Your task to perform on an android device: Go to Wikipedia Image 0: 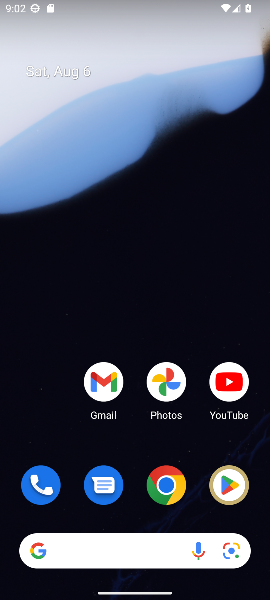
Step 0: drag from (137, 439) to (178, 99)
Your task to perform on an android device: Go to Wikipedia Image 1: 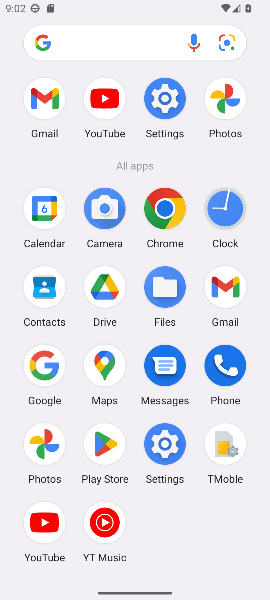
Step 1: click (163, 209)
Your task to perform on an android device: Go to Wikipedia Image 2: 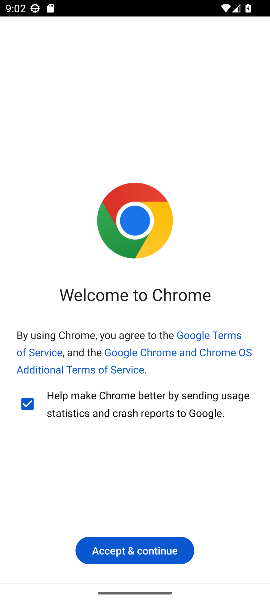
Step 2: click (164, 546)
Your task to perform on an android device: Go to Wikipedia Image 3: 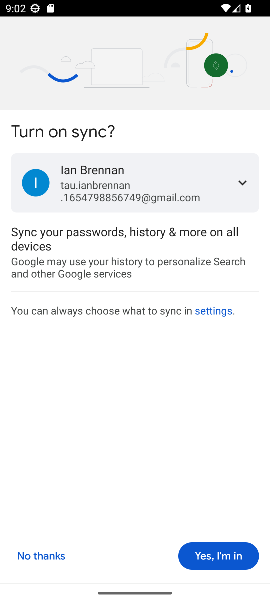
Step 3: click (210, 564)
Your task to perform on an android device: Go to Wikipedia Image 4: 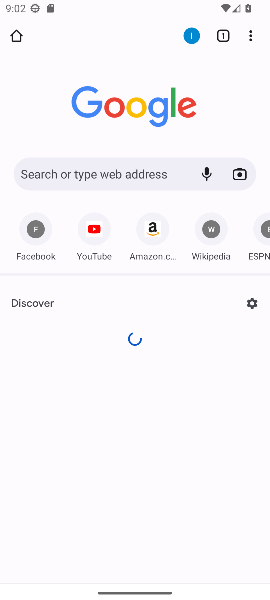
Step 4: click (173, 177)
Your task to perform on an android device: Go to Wikipedia Image 5: 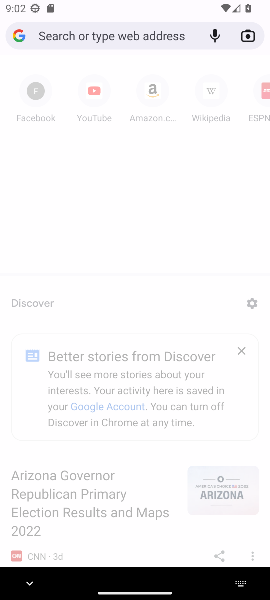
Step 5: type "wikipedia"
Your task to perform on an android device: Go to Wikipedia Image 6: 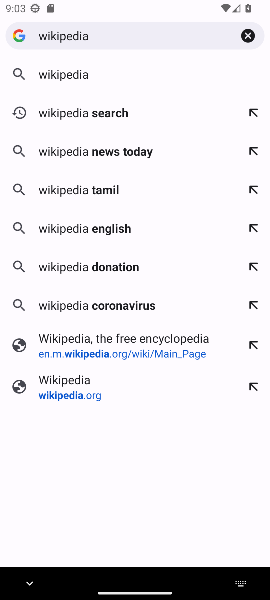
Step 6: click (56, 71)
Your task to perform on an android device: Go to Wikipedia Image 7: 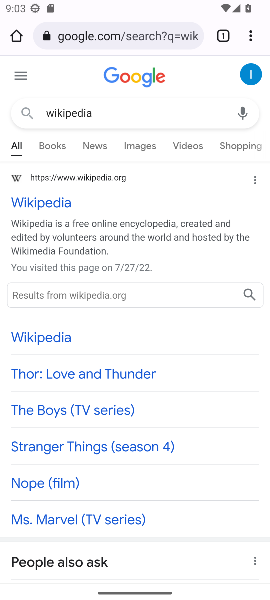
Step 7: click (61, 201)
Your task to perform on an android device: Go to Wikipedia Image 8: 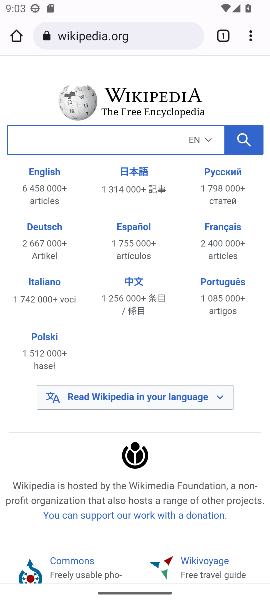
Step 8: task complete